Your task to perform on an android device: Turn on the flashlight Image 0: 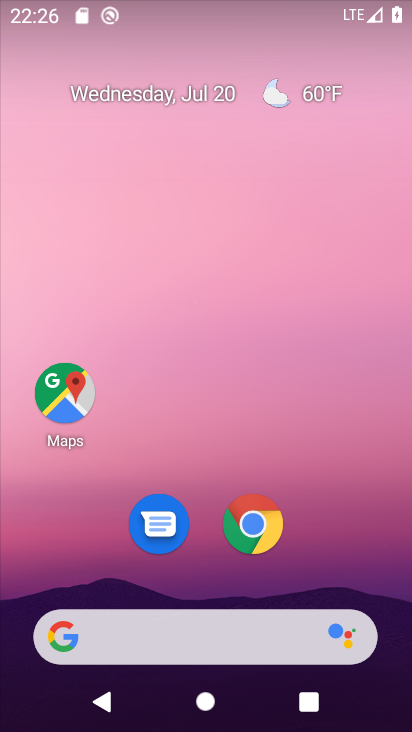
Step 0: drag from (308, 541) to (321, 54)
Your task to perform on an android device: Turn on the flashlight Image 1: 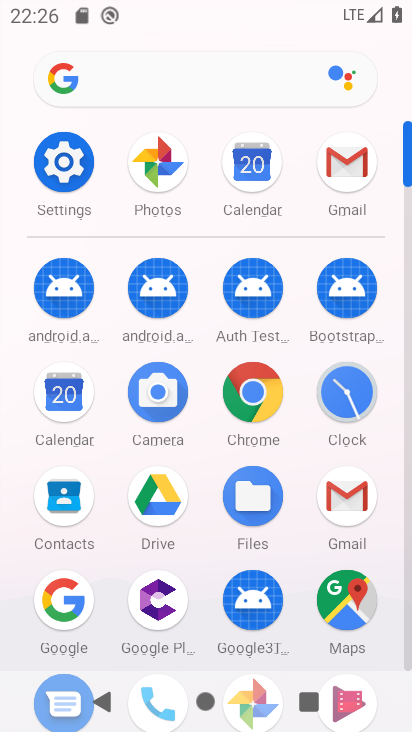
Step 1: click (66, 160)
Your task to perform on an android device: Turn on the flashlight Image 2: 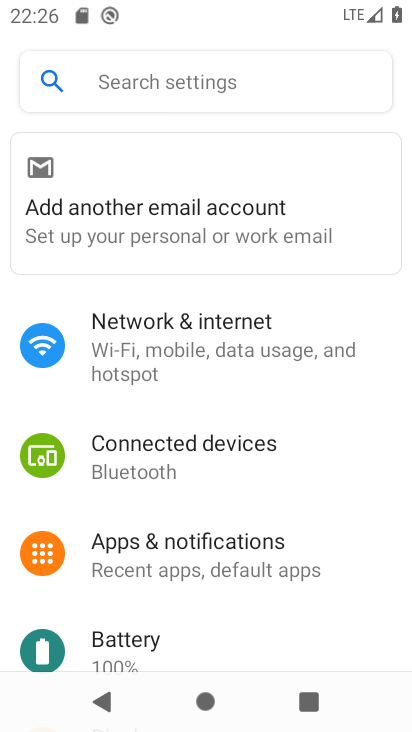
Step 2: click (298, 84)
Your task to perform on an android device: Turn on the flashlight Image 3: 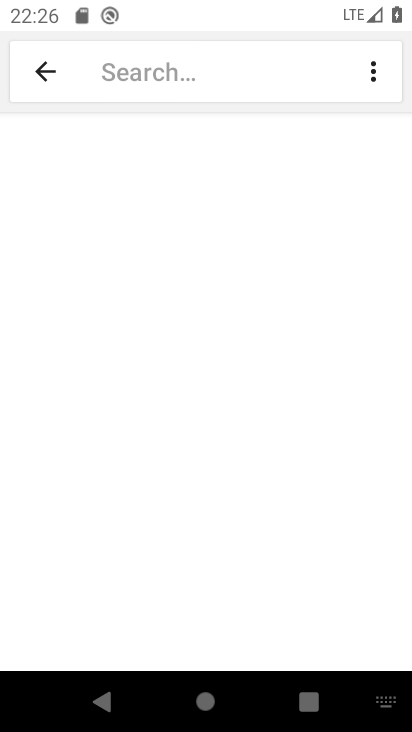
Step 3: type "Flashlight"
Your task to perform on an android device: Turn on the flashlight Image 4: 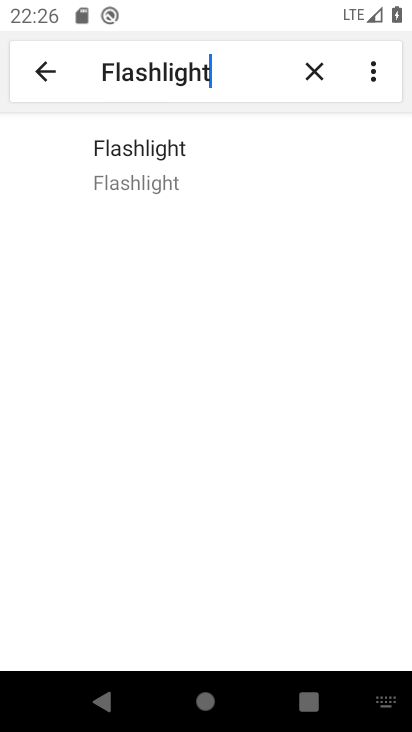
Step 4: click (166, 150)
Your task to perform on an android device: Turn on the flashlight Image 5: 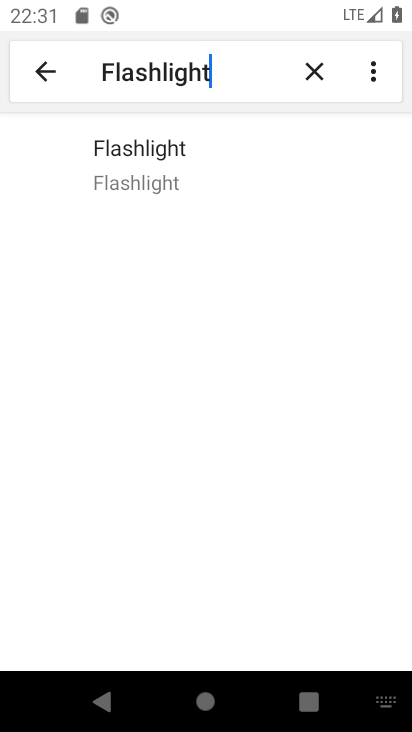
Step 5: task complete